Your task to perform on an android device: Search for pizza restaurants on Maps Image 0: 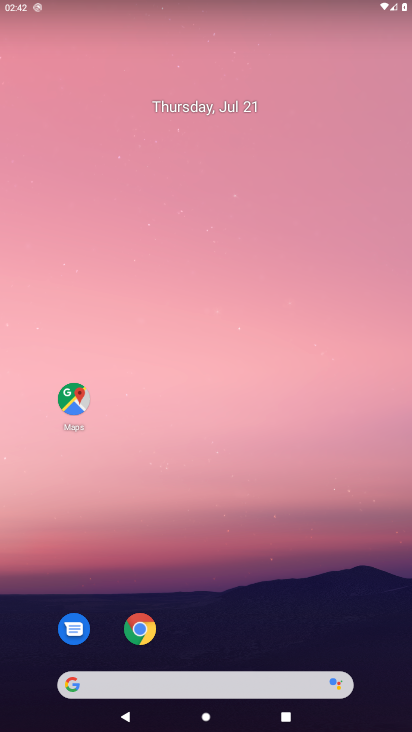
Step 0: click (61, 396)
Your task to perform on an android device: Search for pizza restaurants on Maps Image 1: 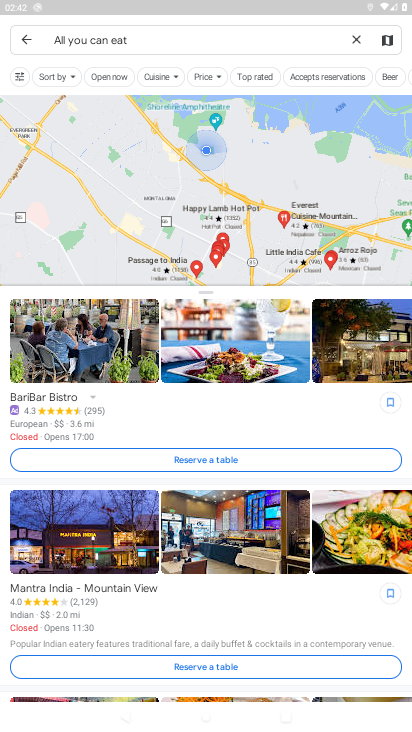
Step 1: click (24, 42)
Your task to perform on an android device: Search for pizza restaurants on Maps Image 2: 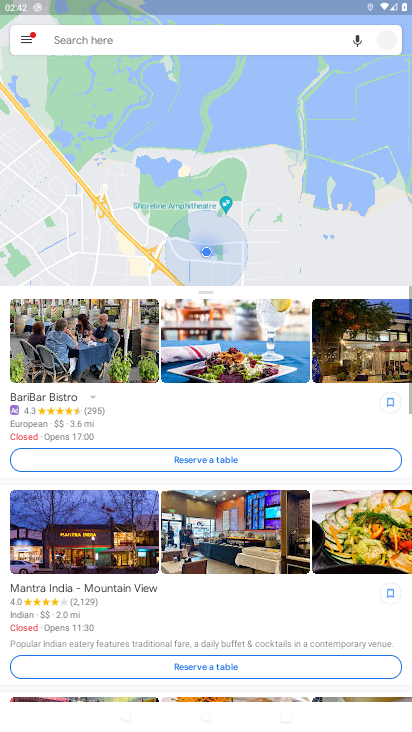
Step 2: click (87, 38)
Your task to perform on an android device: Search for pizza restaurants on Maps Image 3: 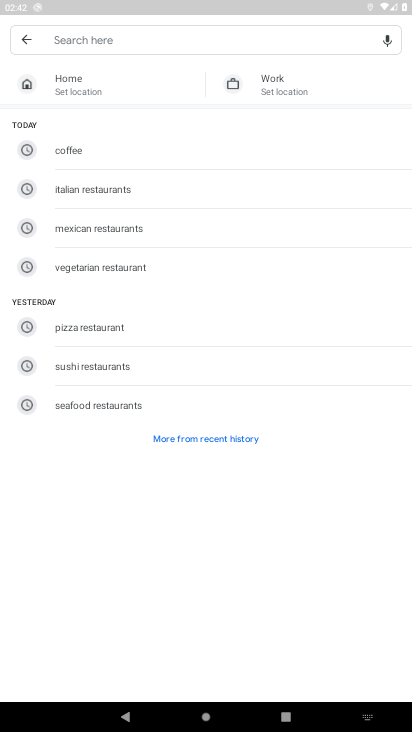
Step 3: click (86, 325)
Your task to perform on an android device: Search for pizza restaurants on Maps Image 4: 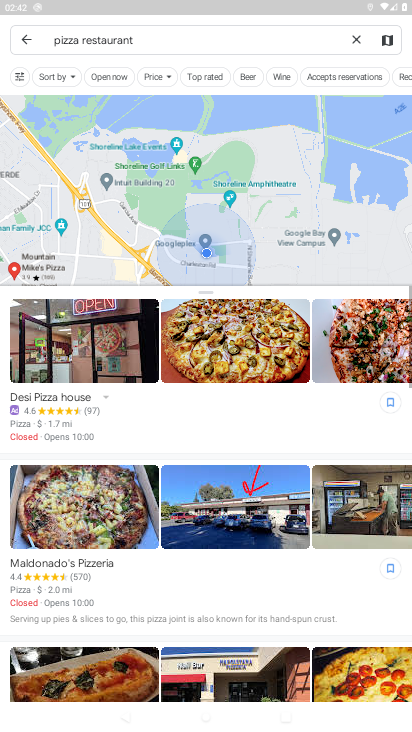
Step 4: task complete